Your task to perform on an android device: change the clock display to show seconds Image 0: 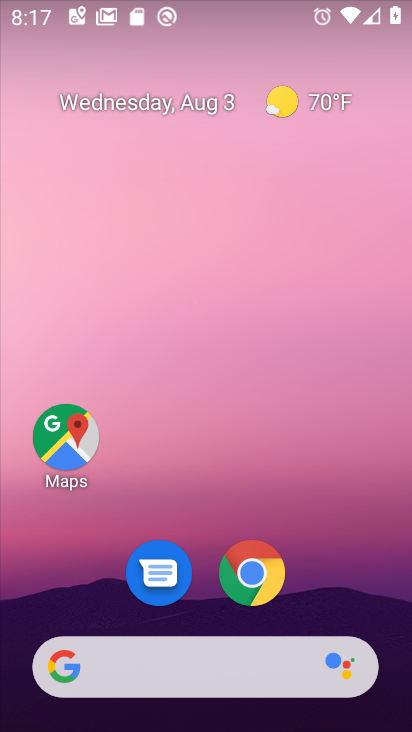
Step 0: drag from (348, 626) to (327, 8)
Your task to perform on an android device: change the clock display to show seconds Image 1: 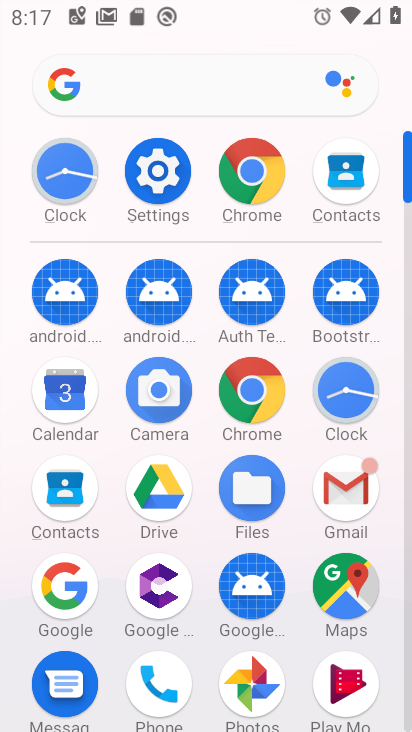
Step 1: click (60, 169)
Your task to perform on an android device: change the clock display to show seconds Image 2: 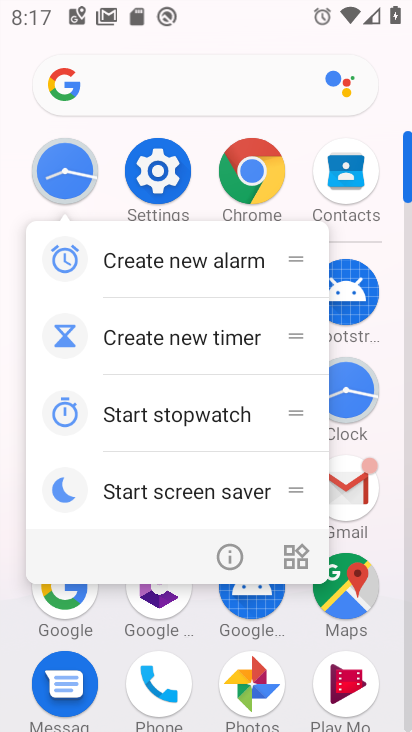
Step 2: click (55, 175)
Your task to perform on an android device: change the clock display to show seconds Image 3: 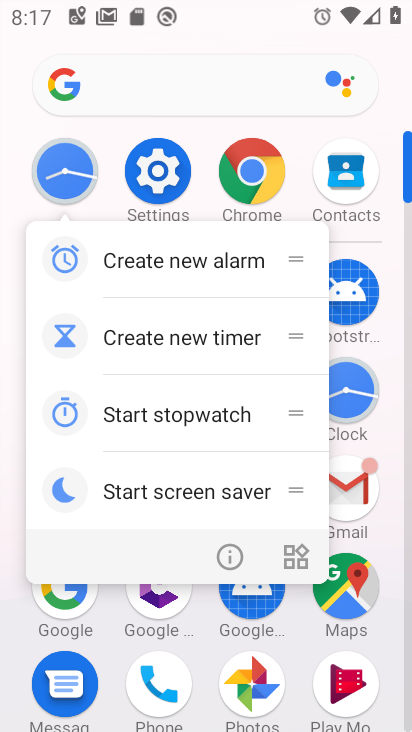
Step 3: click (55, 175)
Your task to perform on an android device: change the clock display to show seconds Image 4: 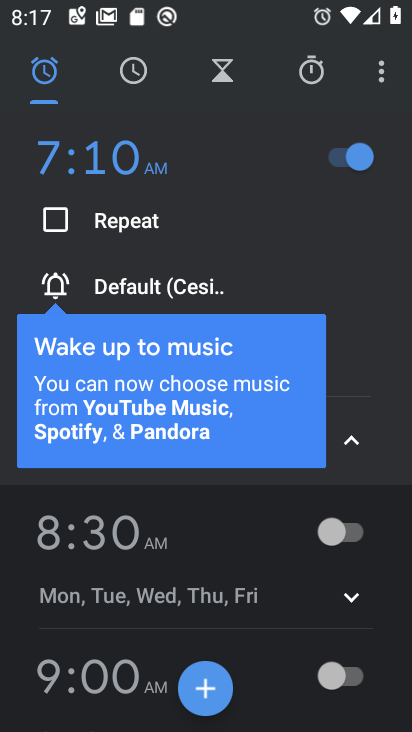
Step 4: click (379, 70)
Your task to perform on an android device: change the clock display to show seconds Image 5: 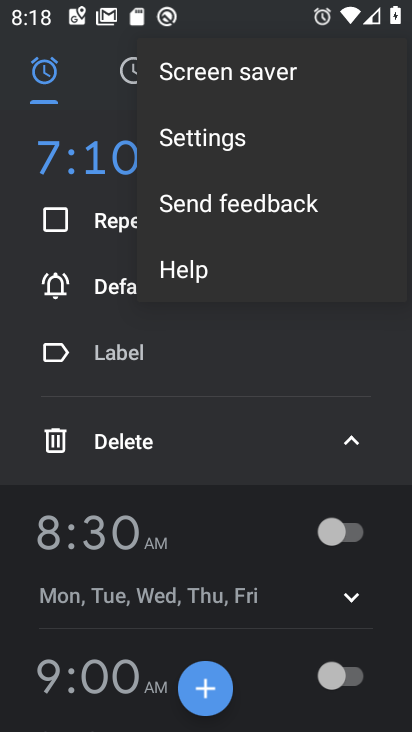
Step 5: click (182, 150)
Your task to perform on an android device: change the clock display to show seconds Image 6: 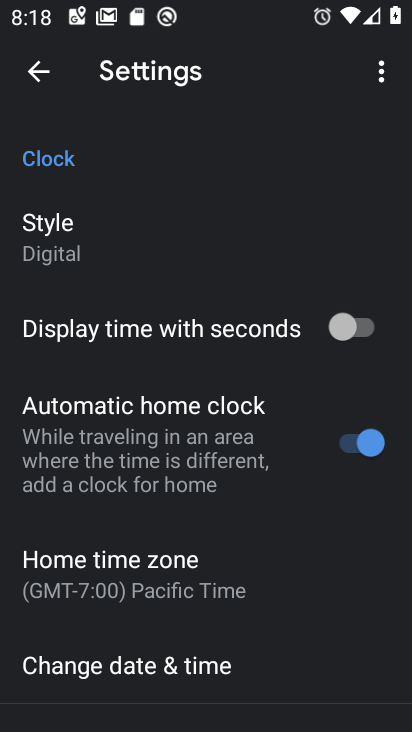
Step 6: click (346, 329)
Your task to perform on an android device: change the clock display to show seconds Image 7: 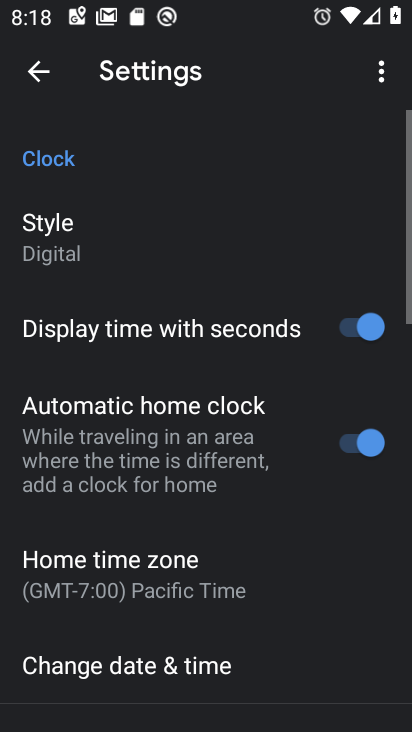
Step 7: task complete